Your task to perform on an android device: change notification settings in the gmail app Image 0: 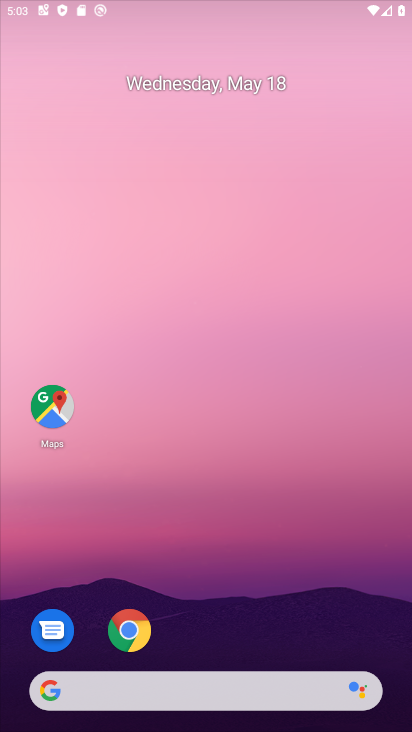
Step 0: drag from (182, 663) to (181, 313)
Your task to perform on an android device: change notification settings in the gmail app Image 1: 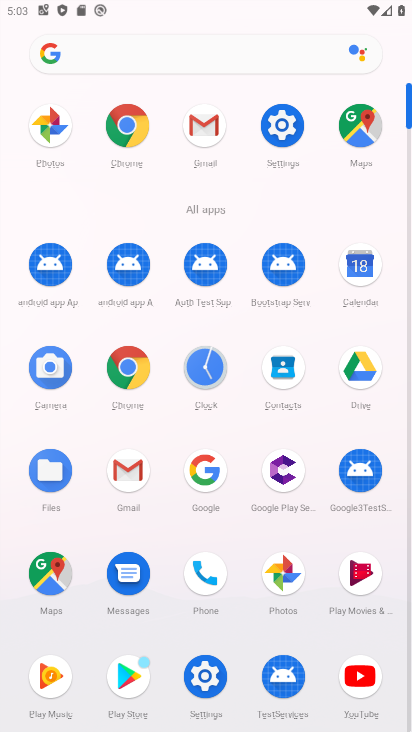
Step 1: click (199, 132)
Your task to perform on an android device: change notification settings in the gmail app Image 2: 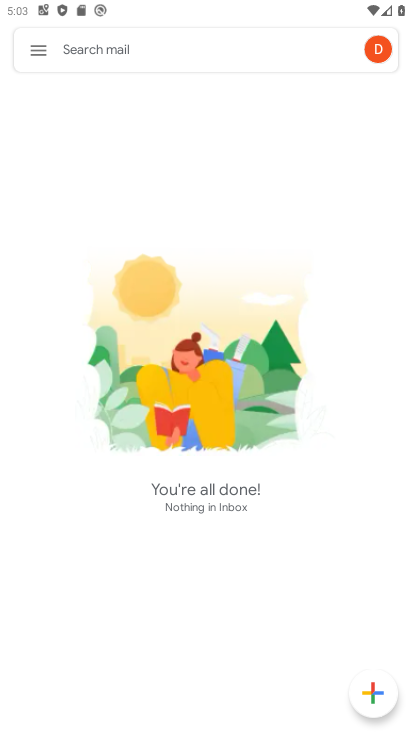
Step 2: click (34, 53)
Your task to perform on an android device: change notification settings in the gmail app Image 3: 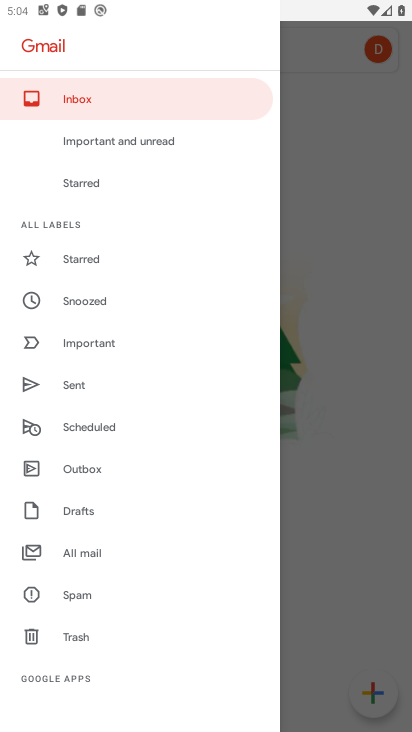
Step 3: drag from (110, 672) to (118, 282)
Your task to perform on an android device: change notification settings in the gmail app Image 4: 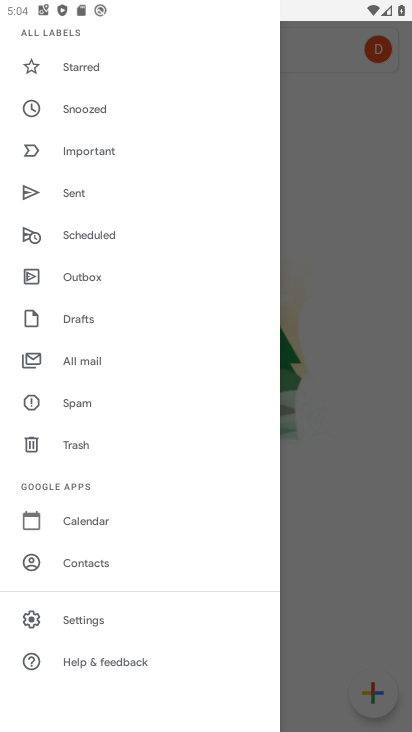
Step 4: click (84, 612)
Your task to perform on an android device: change notification settings in the gmail app Image 5: 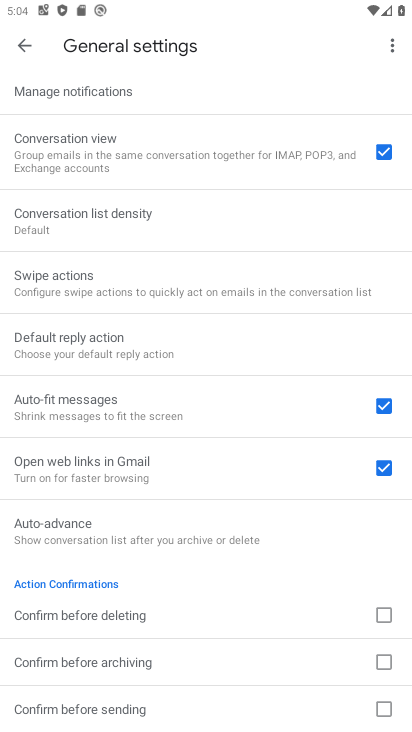
Step 5: click (76, 94)
Your task to perform on an android device: change notification settings in the gmail app Image 6: 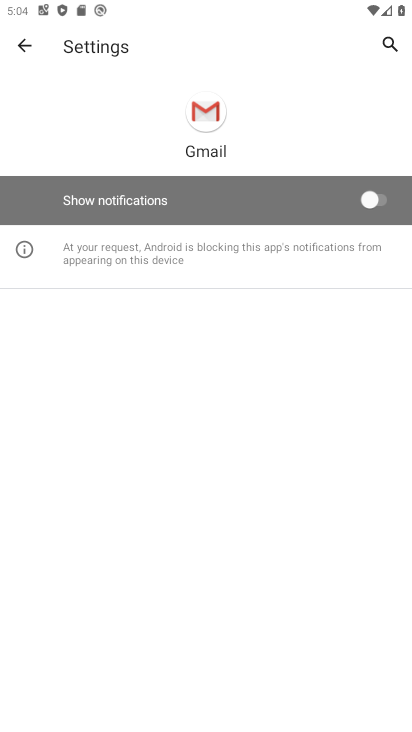
Step 6: click (374, 198)
Your task to perform on an android device: change notification settings in the gmail app Image 7: 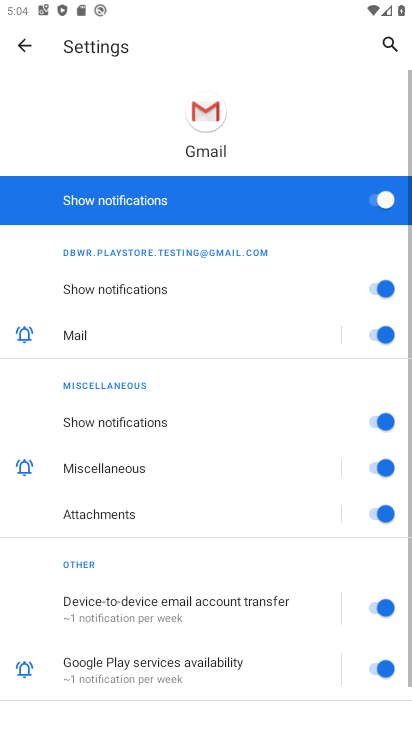
Step 7: task complete